Your task to perform on an android device: What's on my calendar tomorrow? Image 0: 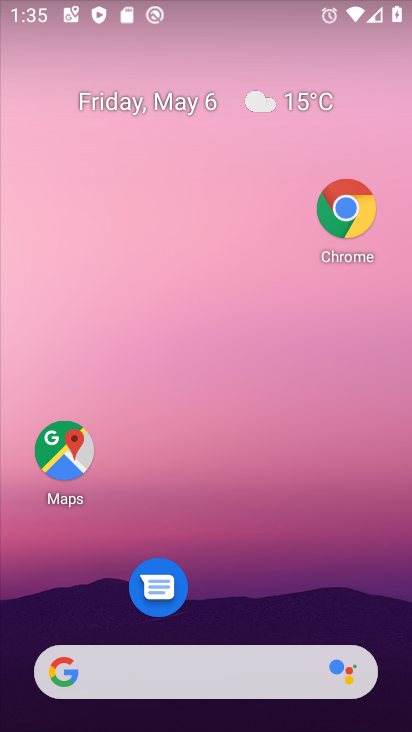
Step 0: click (307, 142)
Your task to perform on an android device: What's on my calendar tomorrow? Image 1: 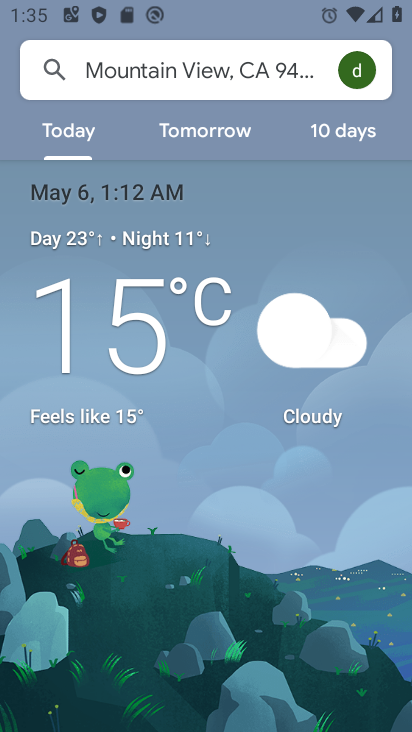
Step 1: press home button
Your task to perform on an android device: What's on my calendar tomorrow? Image 2: 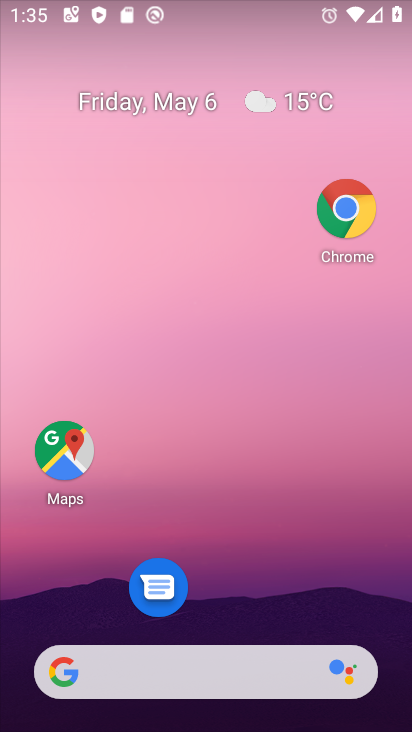
Step 2: drag from (271, 590) to (228, 112)
Your task to perform on an android device: What's on my calendar tomorrow? Image 3: 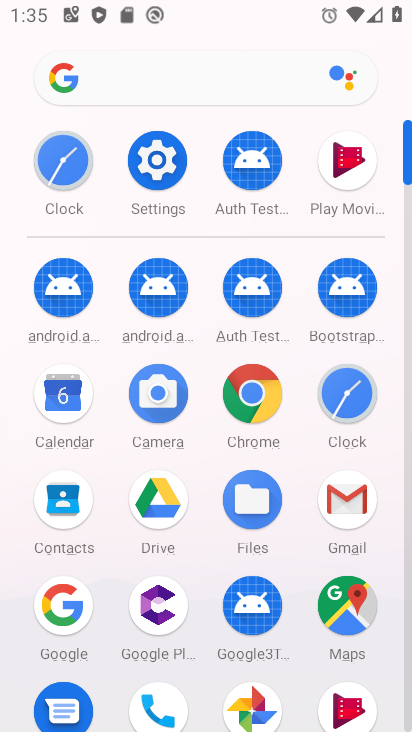
Step 3: click (67, 415)
Your task to perform on an android device: What's on my calendar tomorrow? Image 4: 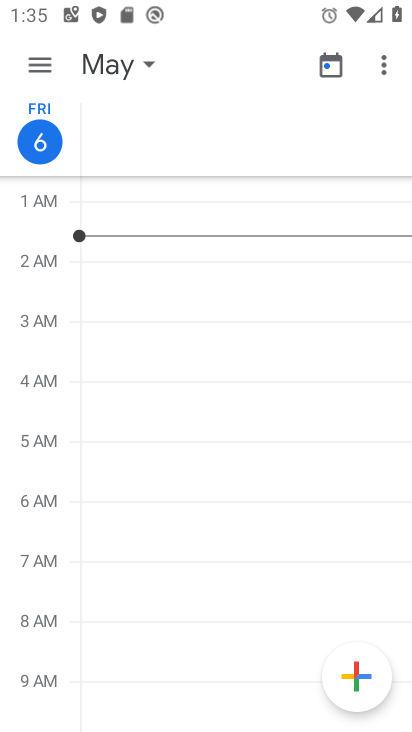
Step 4: click (90, 71)
Your task to perform on an android device: What's on my calendar tomorrow? Image 5: 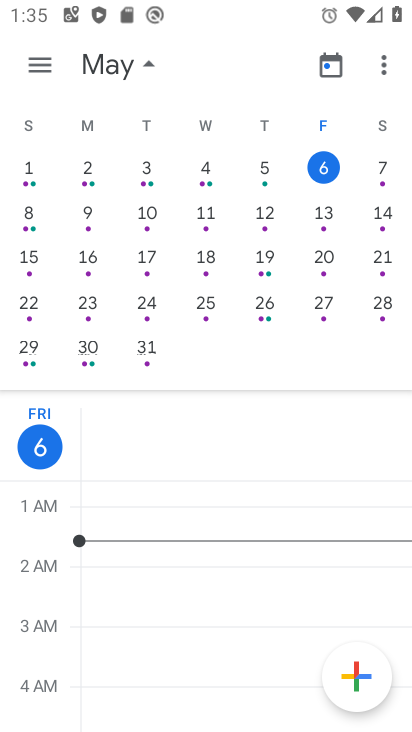
Step 5: click (384, 177)
Your task to perform on an android device: What's on my calendar tomorrow? Image 6: 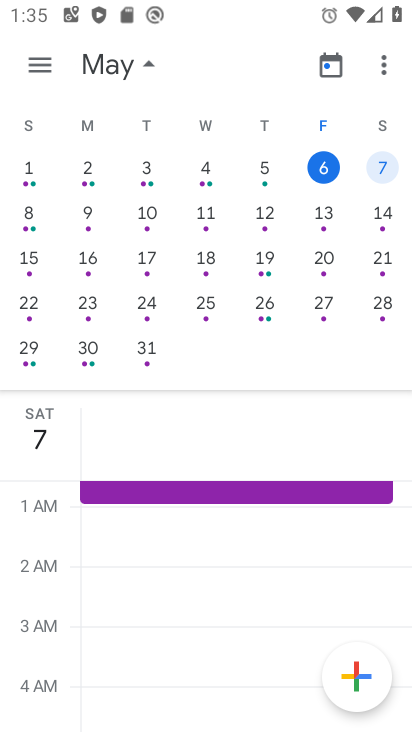
Step 6: drag from (269, 447) to (280, 226)
Your task to perform on an android device: What's on my calendar tomorrow? Image 7: 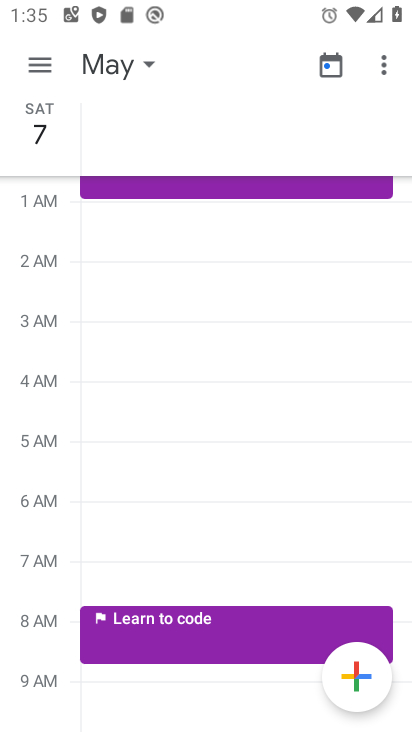
Step 7: drag from (252, 528) to (272, 216)
Your task to perform on an android device: What's on my calendar tomorrow? Image 8: 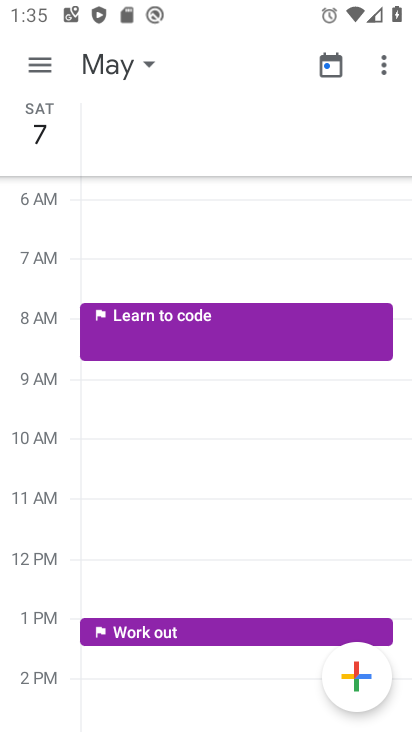
Step 8: drag from (269, 421) to (315, 238)
Your task to perform on an android device: What's on my calendar tomorrow? Image 9: 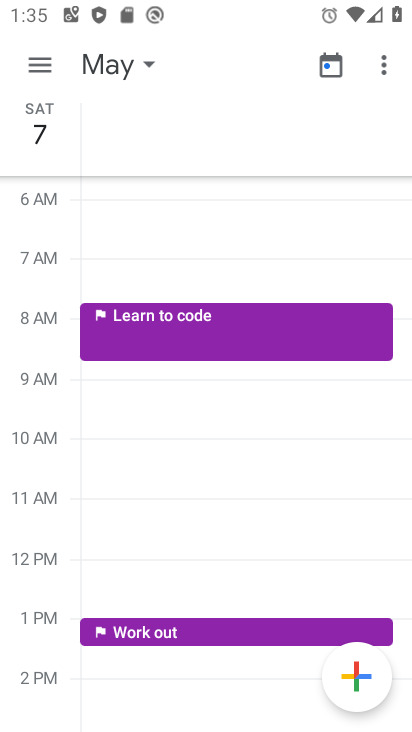
Step 9: drag from (279, 612) to (282, 361)
Your task to perform on an android device: What's on my calendar tomorrow? Image 10: 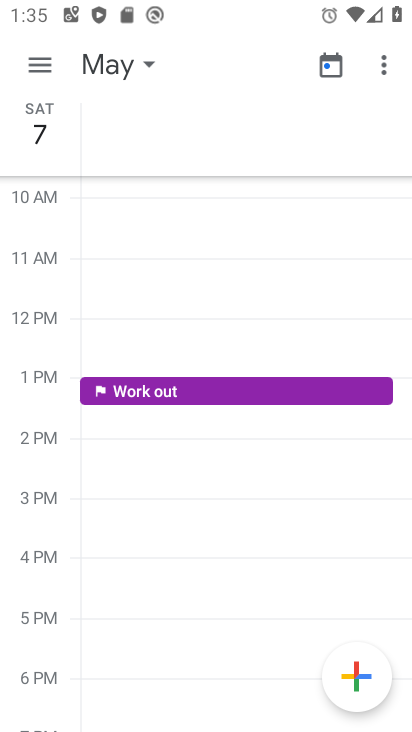
Step 10: drag from (253, 515) to (240, 301)
Your task to perform on an android device: What's on my calendar tomorrow? Image 11: 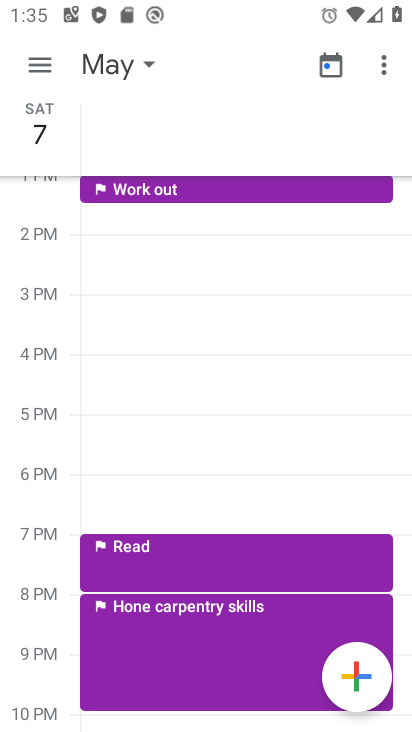
Step 11: drag from (260, 458) to (270, 224)
Your task to perform on an android device: What's on my calendar tomorrow? Image 12: 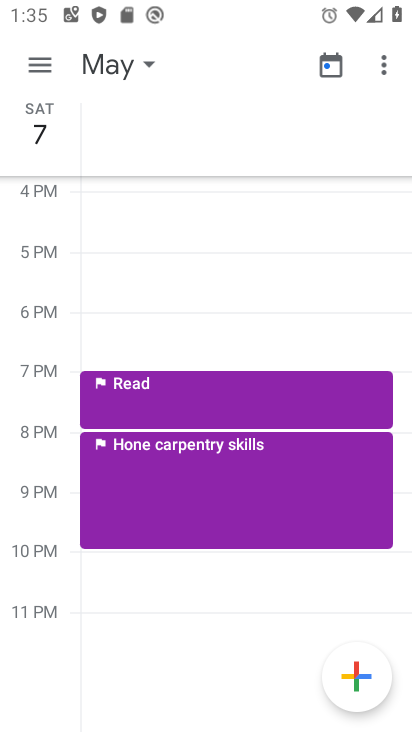
Step 12: click (179, 267)
Your task to perform on an android device: What's on my calendar tomorrow? Image 13: 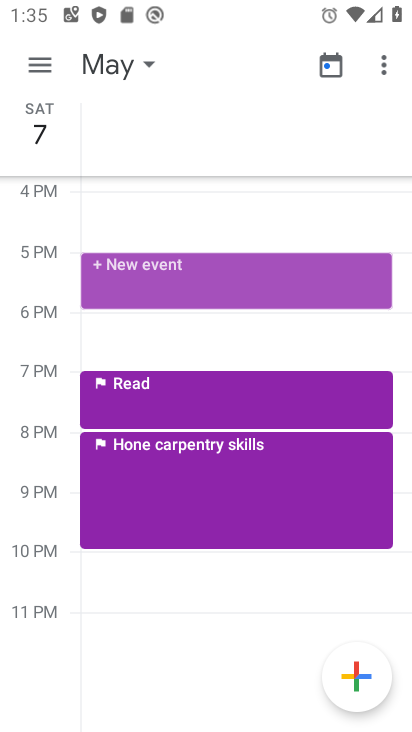
Step 13: task complete